Your task to perform on an android device: Open internet settings Image 0: 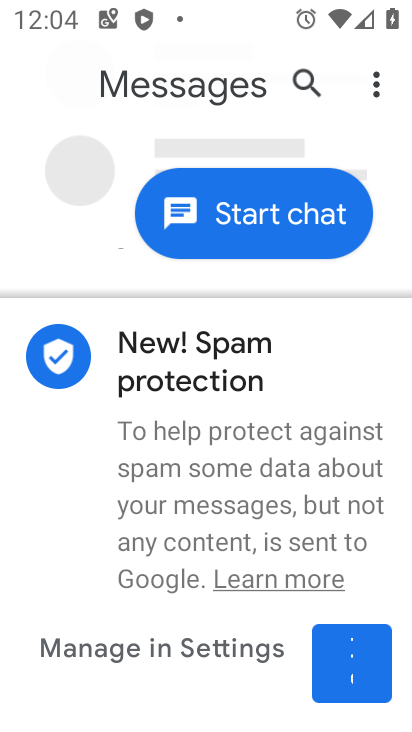
Step 0: press home button
Your task to perform on an android device: Open internet settings Image 1: 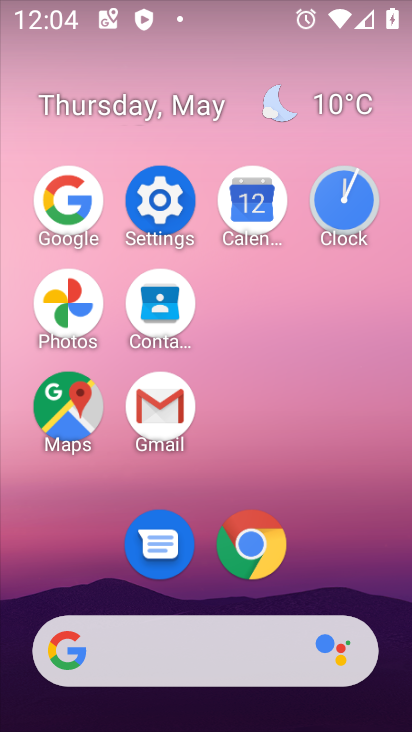
Step 1: click (175, 199)
Your task to perform on an android device: Open internet settings Image 2: 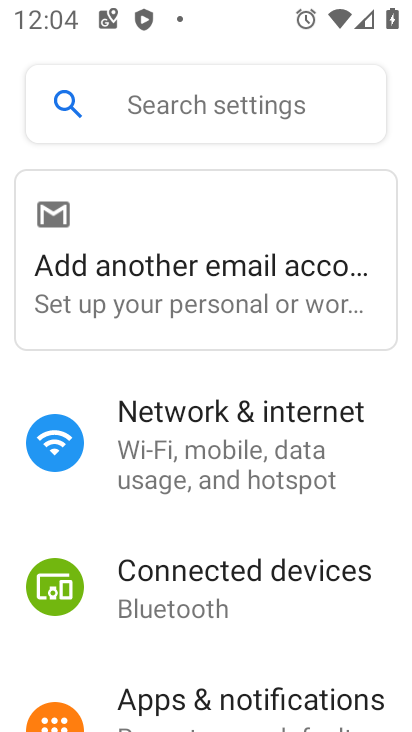
Step 2: click (171, 417)
Your task to perform on an android device: Open internet settings Image 3: 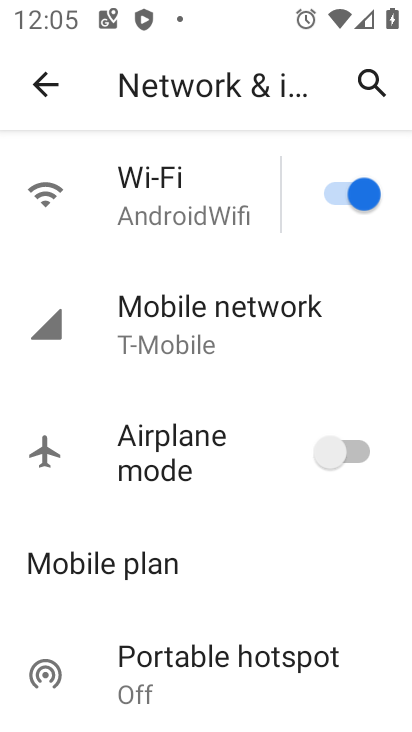
Step 3: click (249, 282)
Your task to perform on an android device: Open internet settings Image 4: 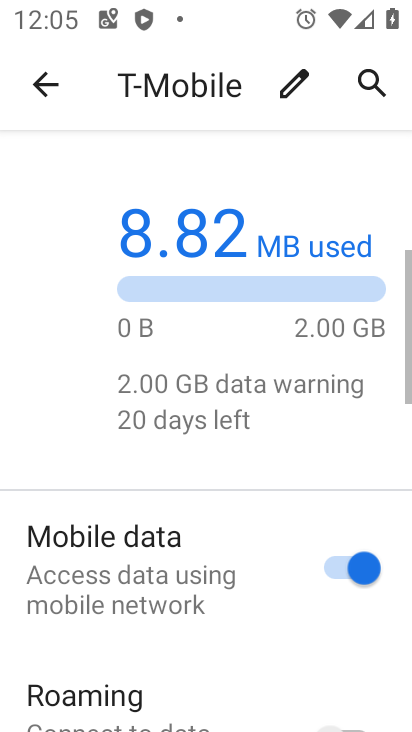
Step 4: task complete